Your task to perform on an android device: Open location settings Image 0: 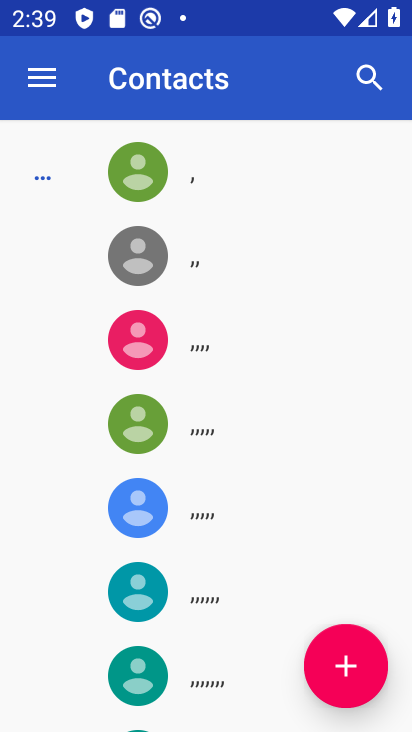
Step 0: press back button
Your task to perform on an android device: Open location settings Image 1: 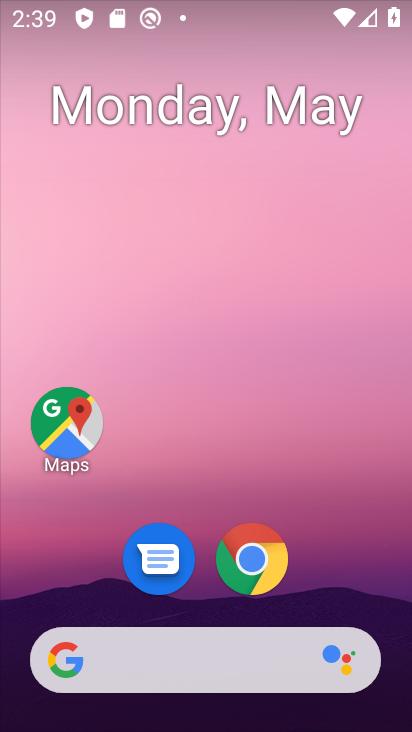
Step 1: drag from (322, 580) to (252, 10)
Your task to perform on an android device: Open location settings Image 2: 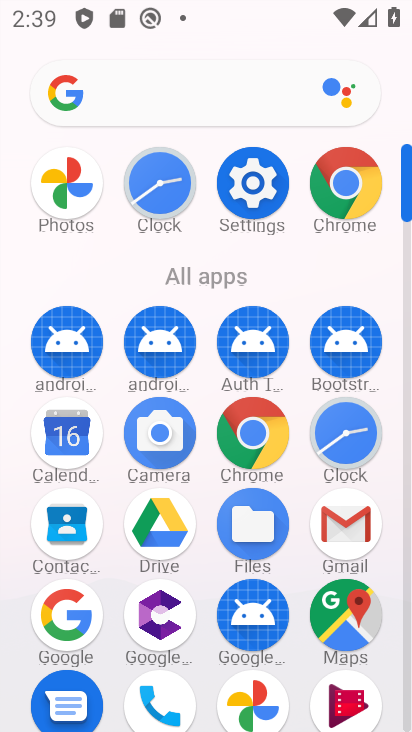
Step 2: drag from (13, 518) to (15, 233)
Your task to perform on an android device: Open location settings Image 3: 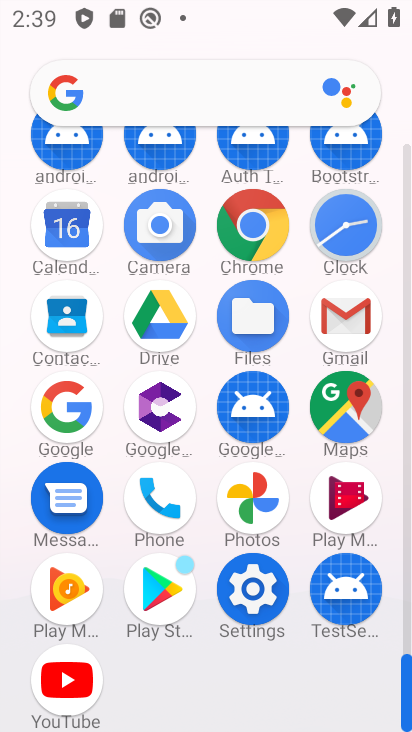
Step 3: click (243, 586)
Your task to perform on an android device: Open location settings Image 4: 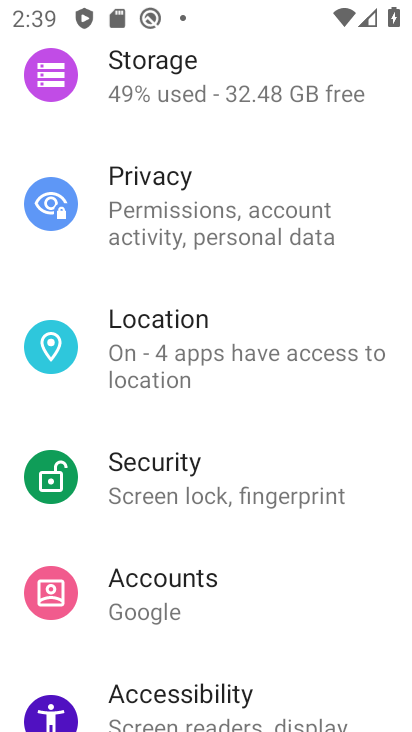
Step 4: click (249, 345)
Your task to perform on an android device: Open location settings Image 5: 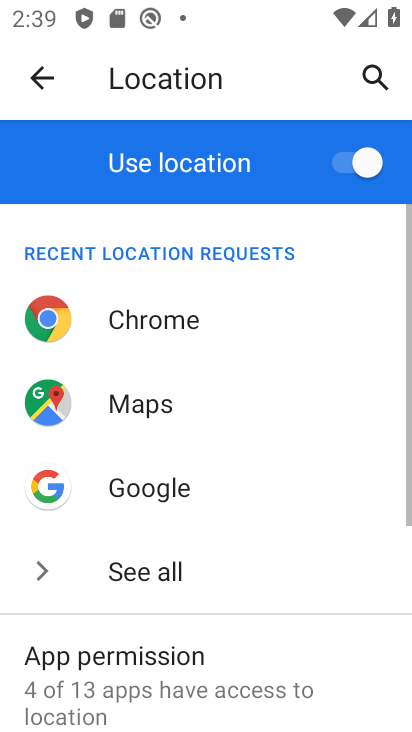
Step 5: drag from (254, 614) to (261, 185)
Your task to perform on an android device: Open location settings Image 6: 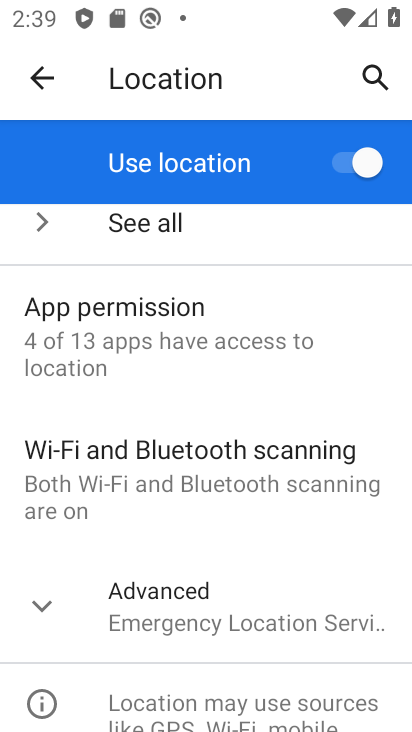
Step 6: click (49, 618)
Your task to perform on an android device: Open location settings Image 7: 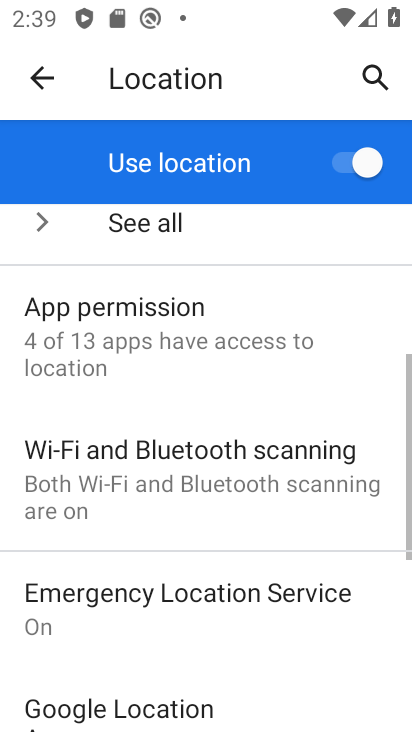
Step 7: task complete